Your task to perform on an android device: Look up the best selling books on Goodreads. Image 0: 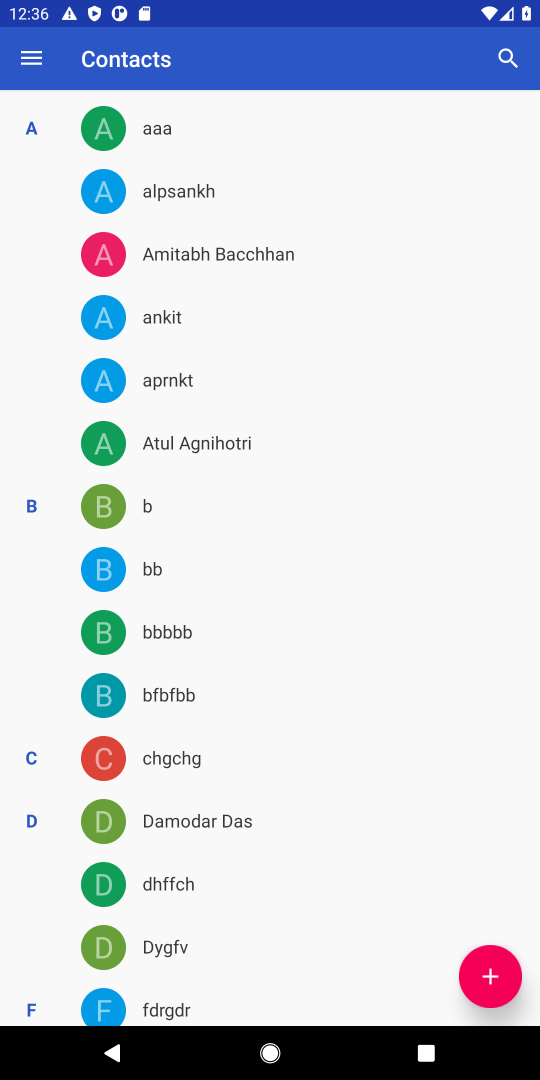
Step 0: press home button
Your task to perform on an android device: Look up the best selling books on Goodreads. Image 1: 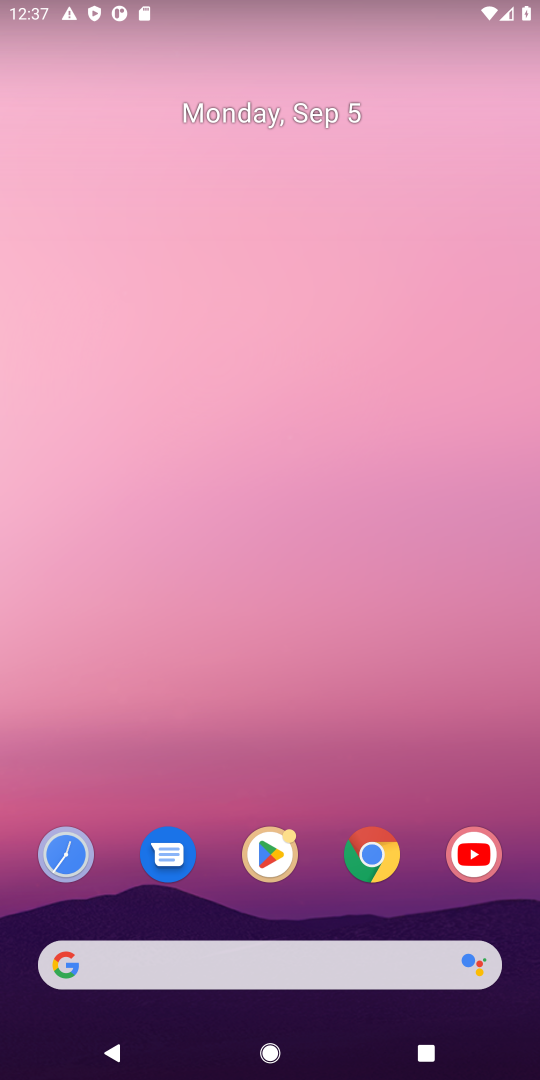
Step 1: click (367, 961)
Your task to perform on an android device: Look up the best selling books on Goodreads. Image 2: 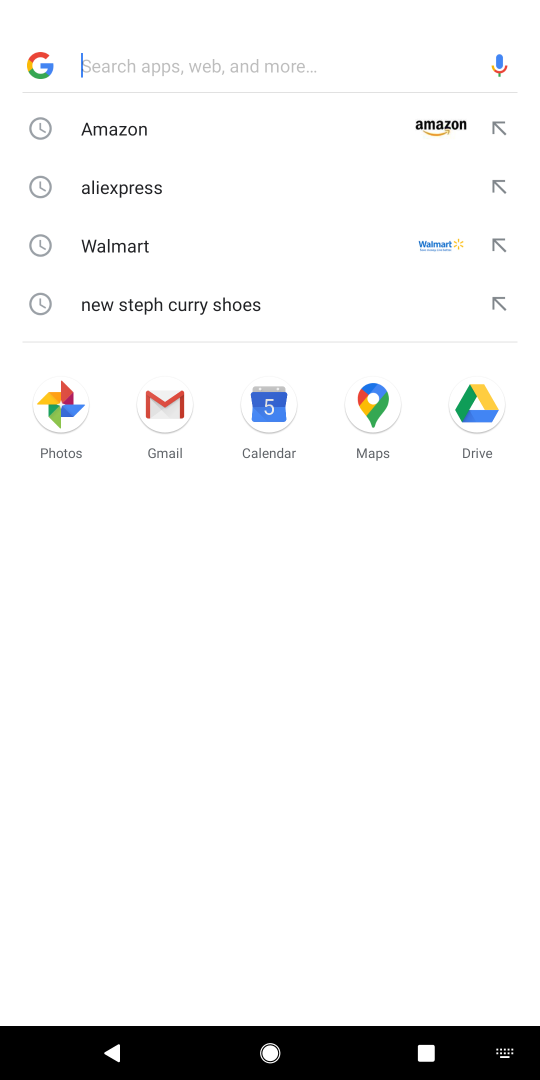
Step 2: press enter
Your task to perform on an android device: Look up the best selling books on Goodreads. Image 3: 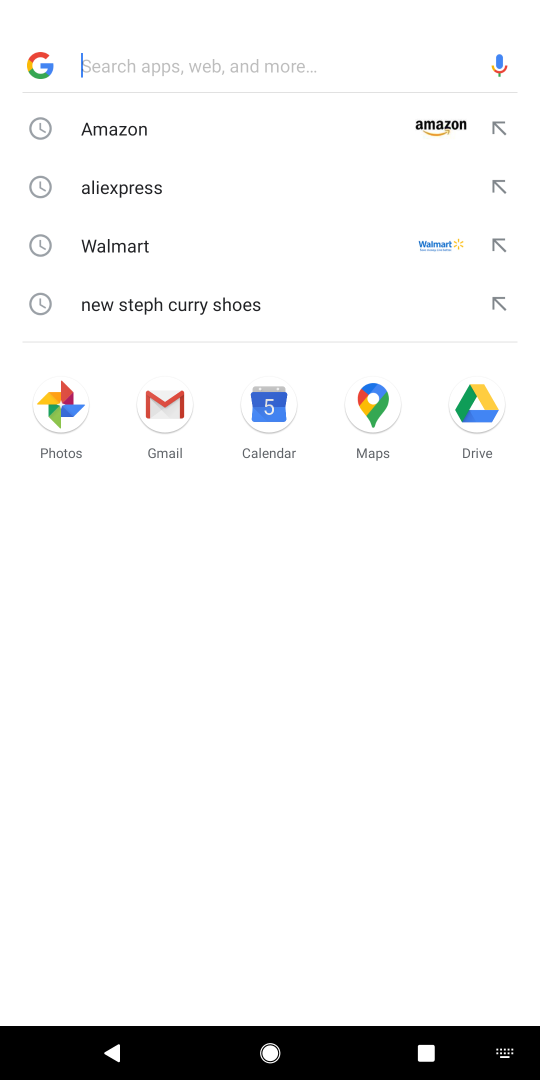
Step 3: type "goodreads"
Your task to perform on an android device: Look up the best selling books on Goodreads. Image 4: 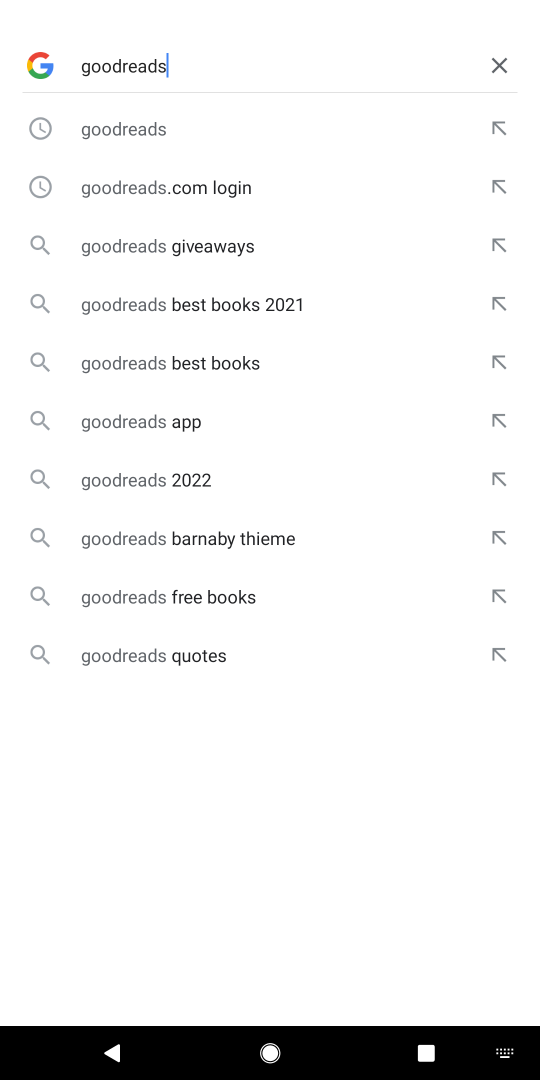
Step 4: click (147, 125)
Your task to perform on an android device: Look up the best selling books on Goodreads. Image 5: 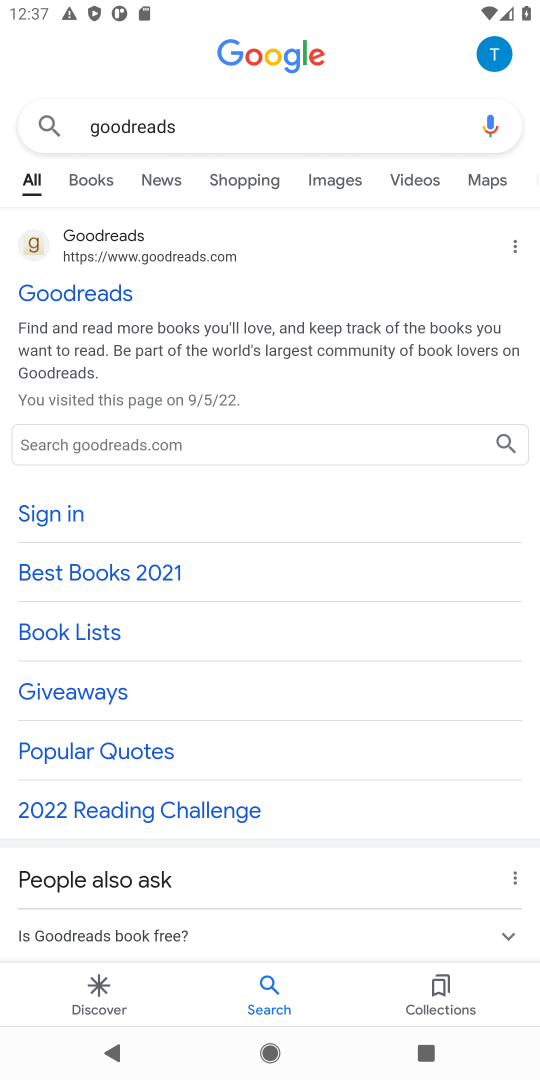
Step 5: click (93, 287)
Your task to perform on an android device: Look up the best selling books on Goodreads. Image 6: 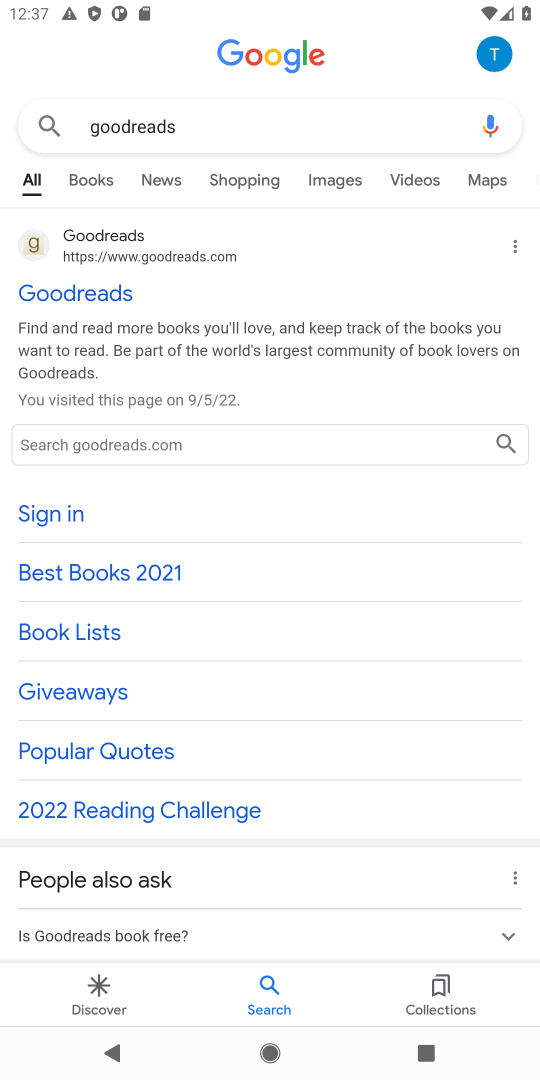
Step 6: click (106, 290)
Your task to perform on an android device: Look up the best selling books on Goodreads. Image 7: 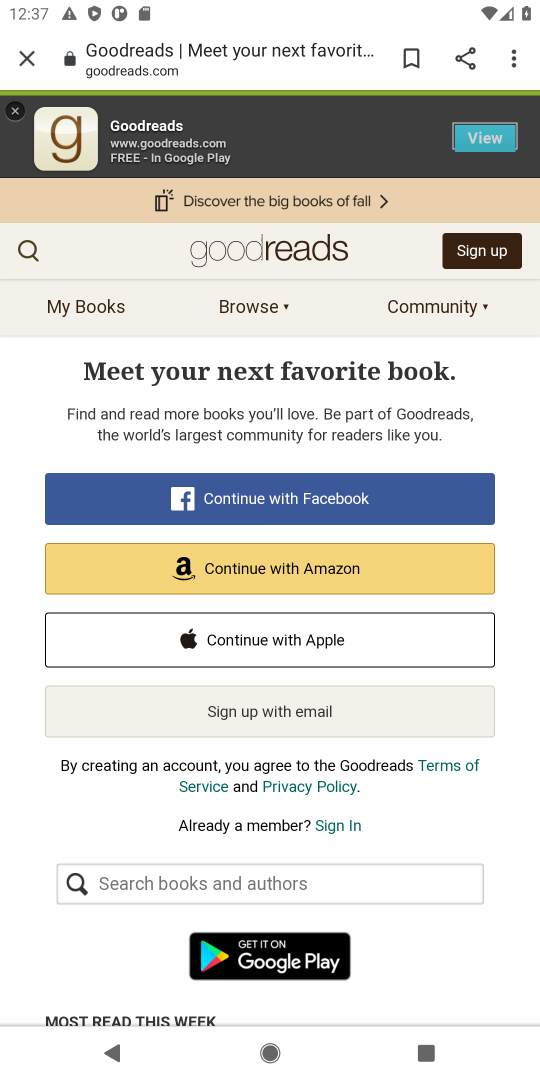
Step 7: click (60, 262)
Your task to perform on an android device: Look up the best selling books on Goodreads. Image 8: 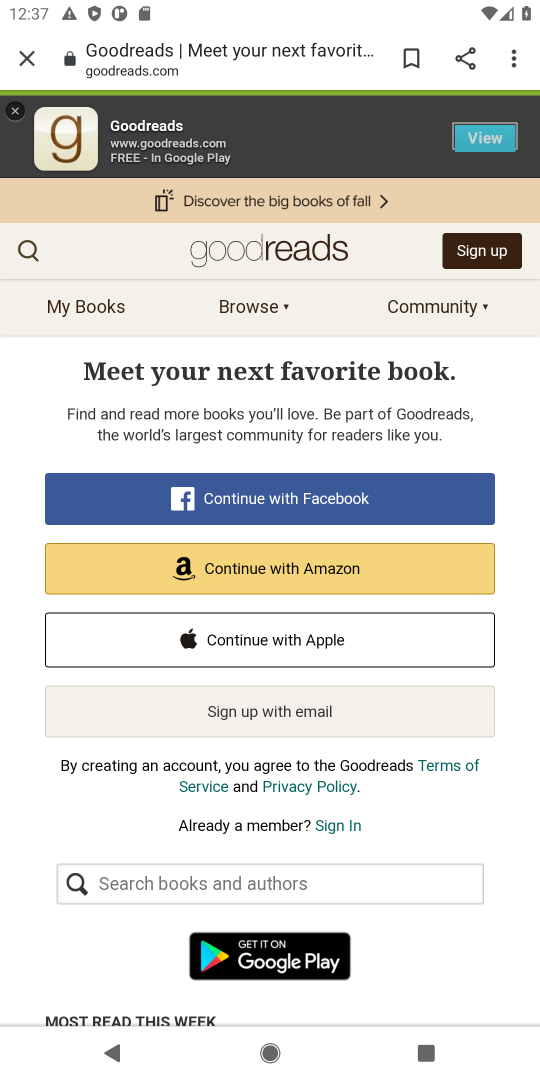
Step 8: click (58, 260)
Your task to perform on an android device: Look up the best selling books on Goodreads. Image 9: 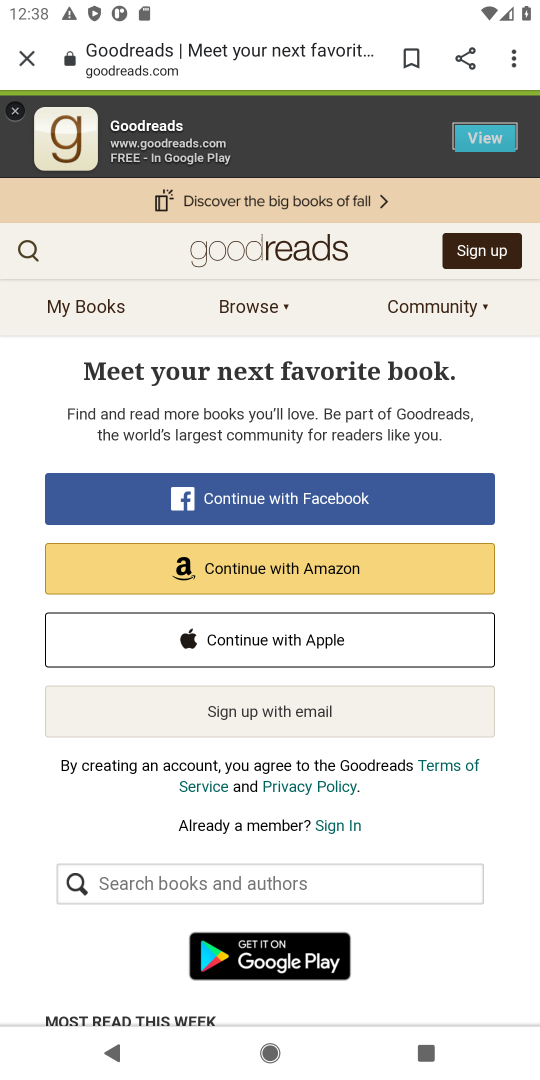
Step 9: click (40, 269)
Your task to perform on an android device: Look up the best selling books on Goodreads. Image 10: 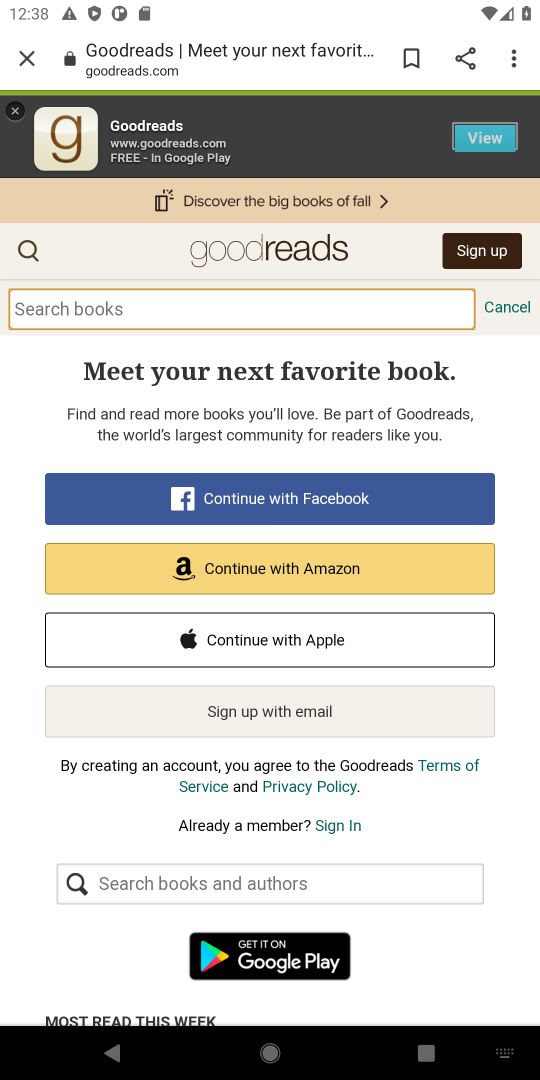
Step 10: type "best selling books"
Your task to perform on an android device: Look up the best selling books on Goodreads. Image 11: 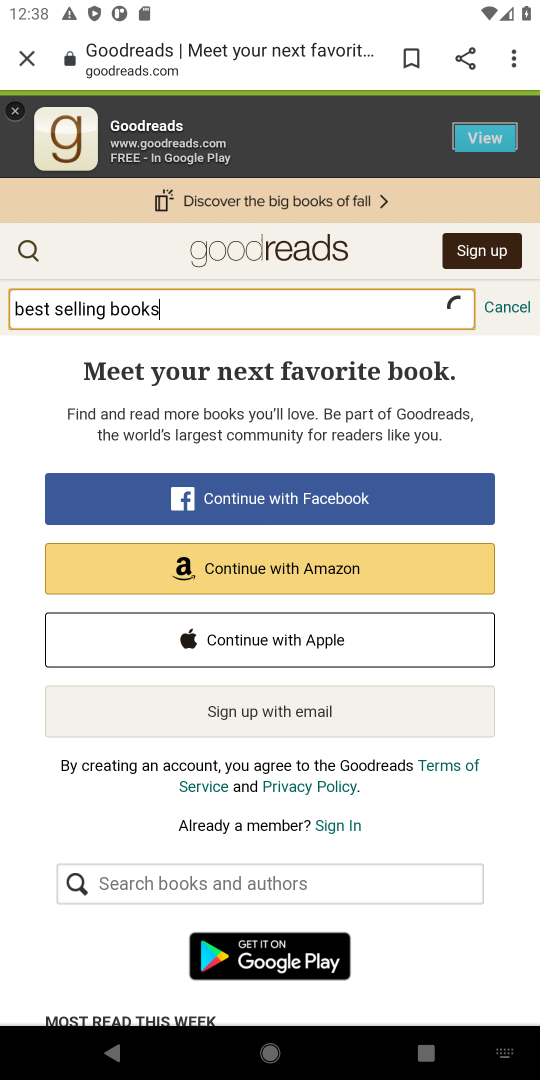
Step 11: press enter
Your task to perform on an android device: Look up the best selling books on Goodreads. Image 12: 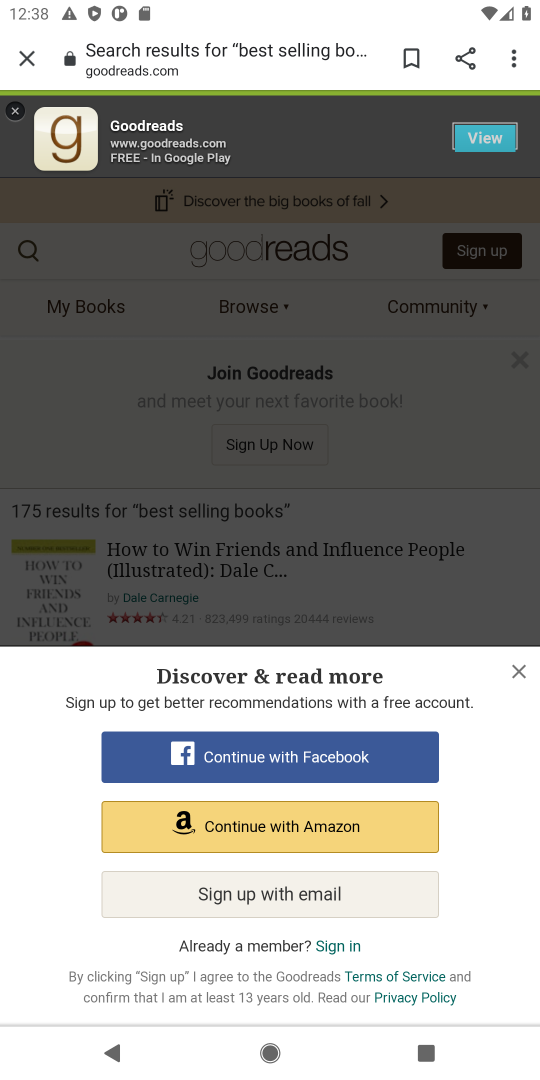
Step 12: click (519, 671)
Your task to perform on an android device: Look up the best selling books on Goodreads. Image 13: 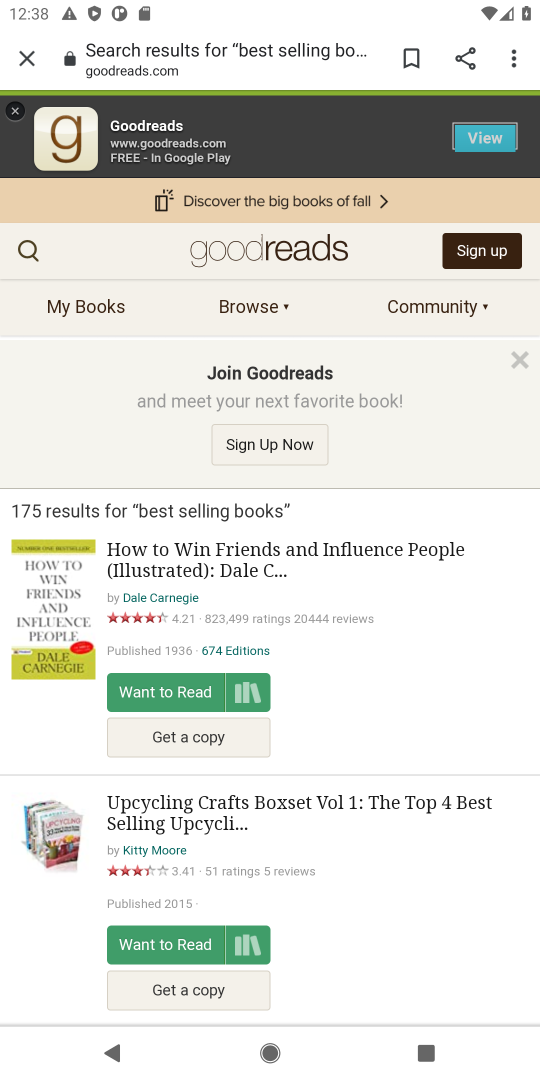
Step 13: task complete